Your task to perform on an android device: Open Maps and search for coffee Image 0: 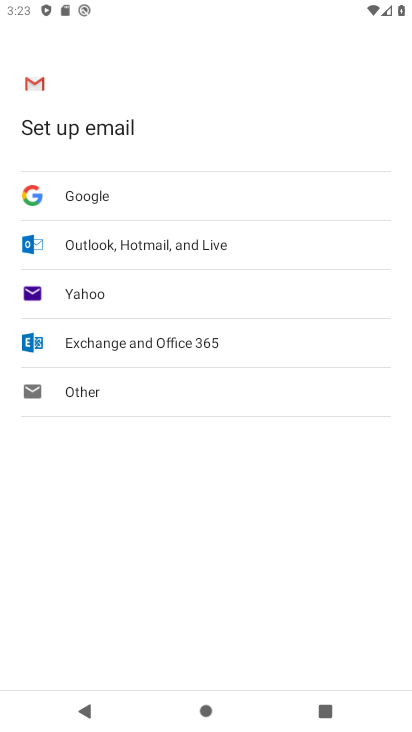
Step 0: press home button
Your task to perform on an android device: Open Maps and search for coffee Image 1: 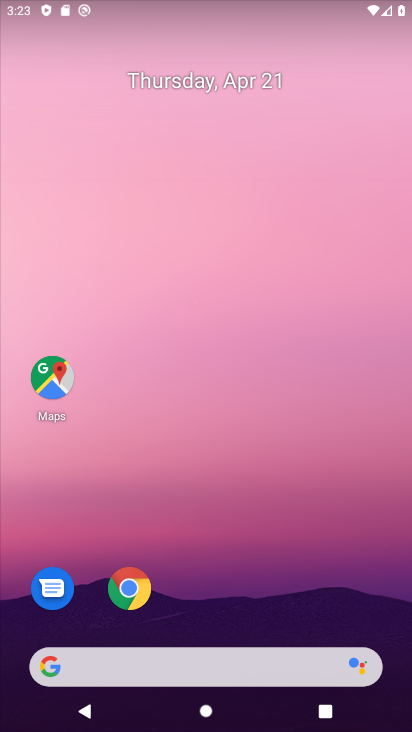
Step 1: click (37, 371)
Your task to perform on an android device: Open Maps and search for coffee Image 2: 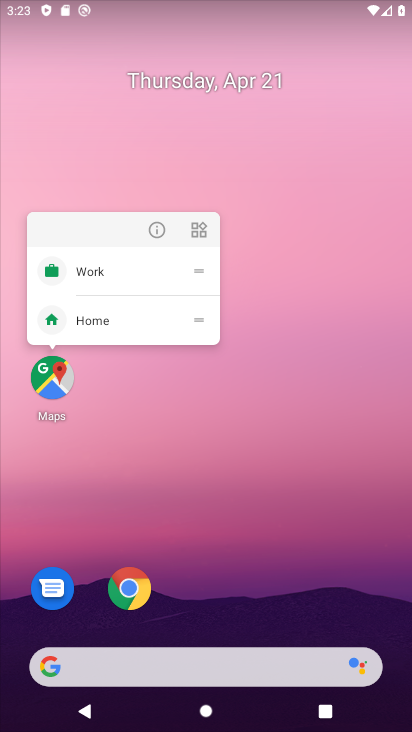
Step 2: click (53, 383)
Your task to perform on an android device: Open Maps and search for coffee Image 3: 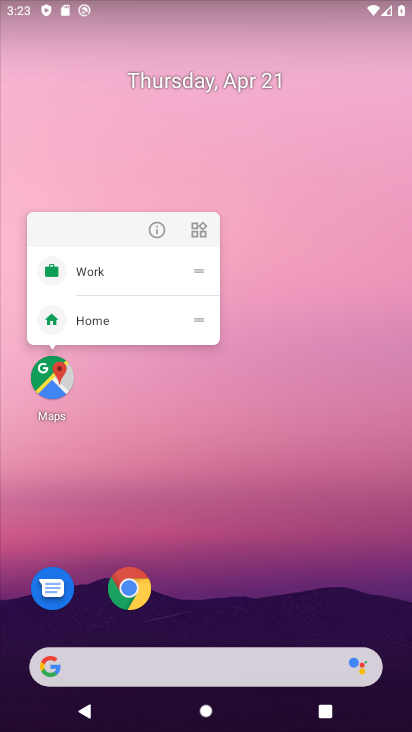
Step 3: click (53, 383)
Your task to perform on an android device: Open Maps and search for coffee Image 4: 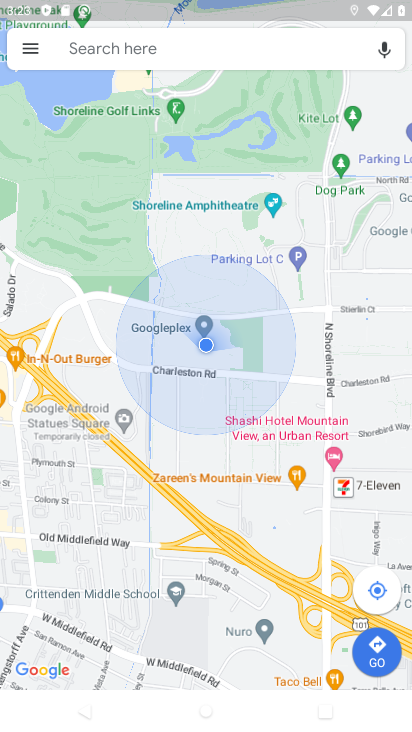
Step 4: click (170, 52)
Your task to perform on an android device: Open Maps and search for coffee Image 5: 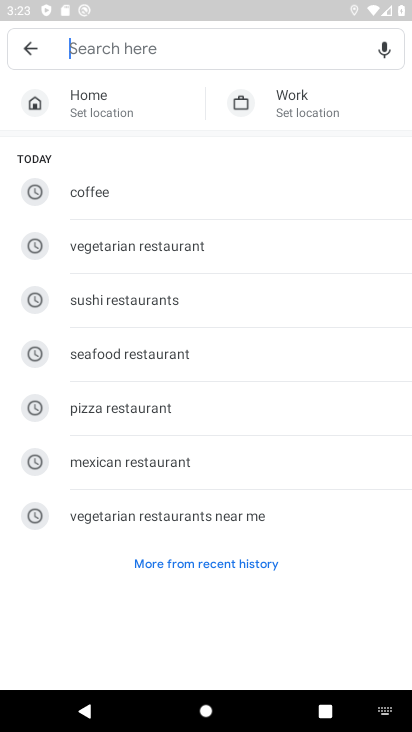
Step 5: click (78, 198)
Your task to perform on an android device: Open Maps and search for coffee Image 6: 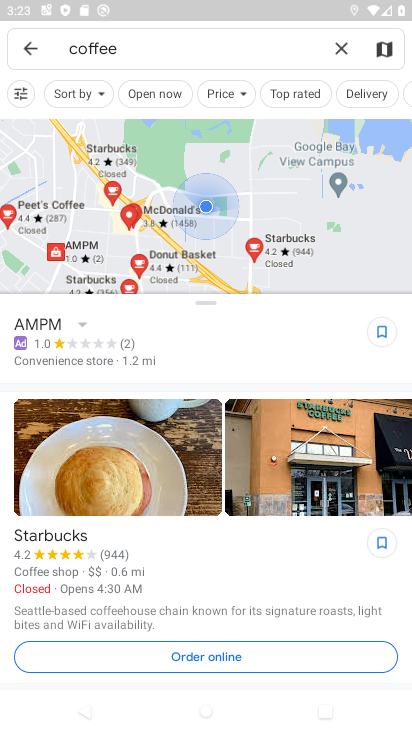
Step 6: task complete